Your task to perform on an android device: Go to display settings Image 0: 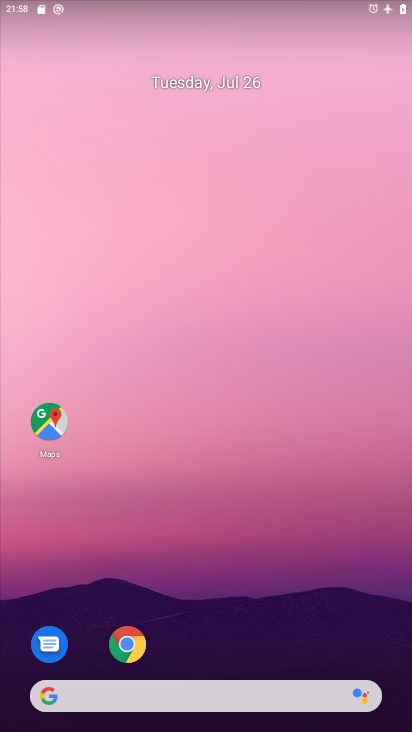
Step 0: drag from (231, 653) to (213, 313)
Your task to perform on an android device: Go to display settings Image 1: 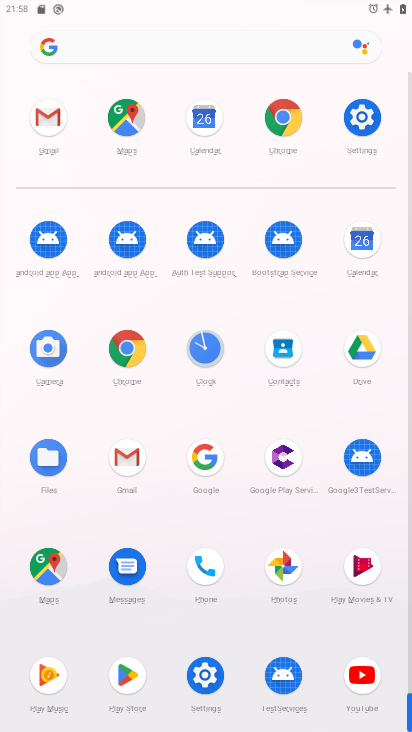
Step 1: click (353, 119)
Your task to perform on an android device: Go to display settings Image 2: 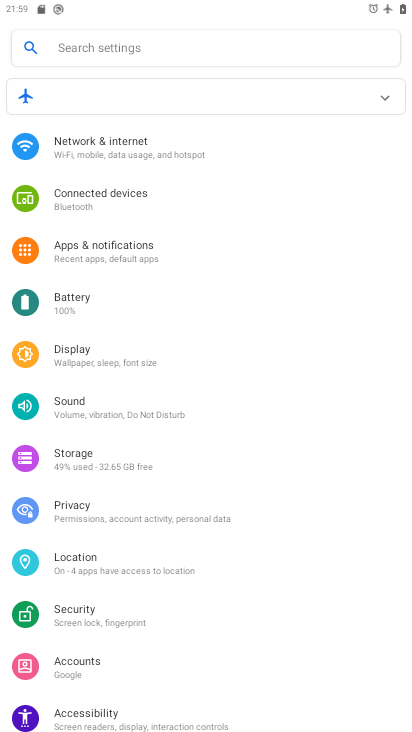
Step 2: click (115, 359)
Your task to perform on an android device: Go to display settings Image 3: 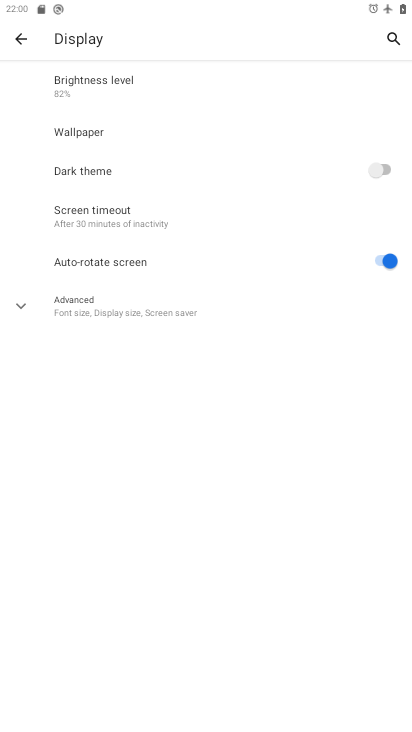
Step 3: task complete